Your task to perform on an android device: Open privacy settings Image 0: 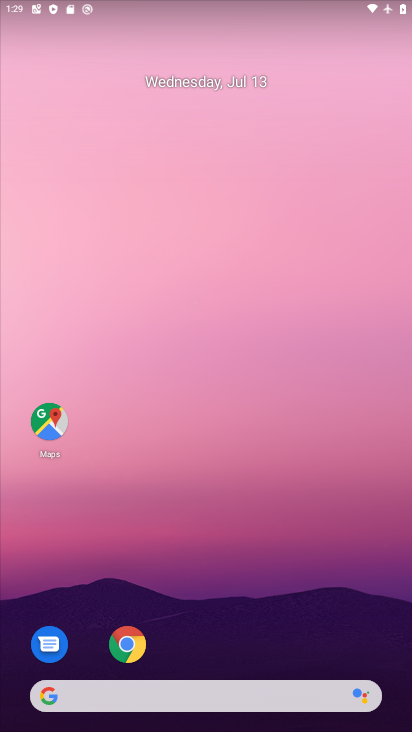
Step 0: drag from (287, 584) to (274, 90)
Your task to perform on an android device: Open privacy settings Image 1: 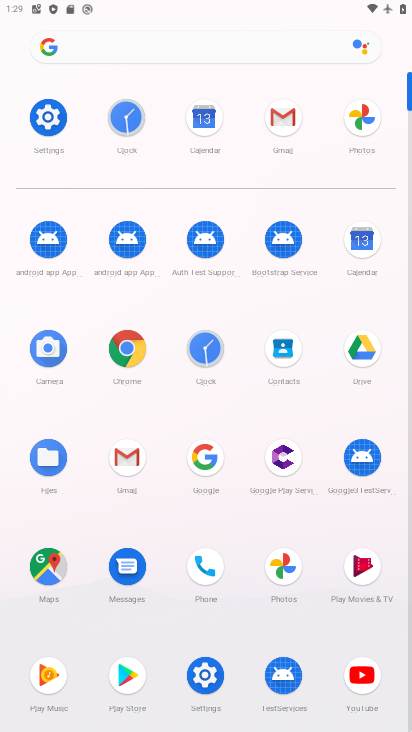
Step 1: click (45, 108)
Your task to perform on an android device: Open privacy settings Image 2: 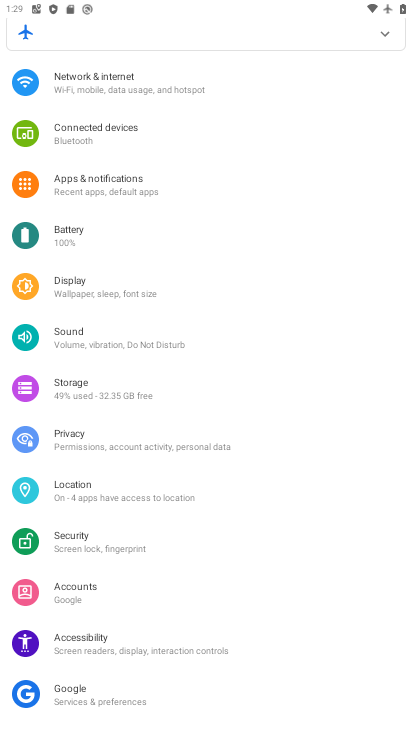
Step 2: click (70, 438)
Your task to perform on an android device: Open privacy settings Image 3: 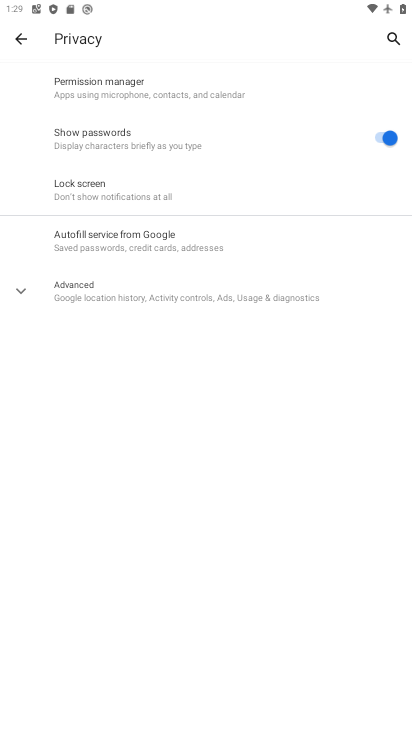
Step 3: task complete